Your task to perform on an android device: Set the phone to "Do not disturb". Image 0: 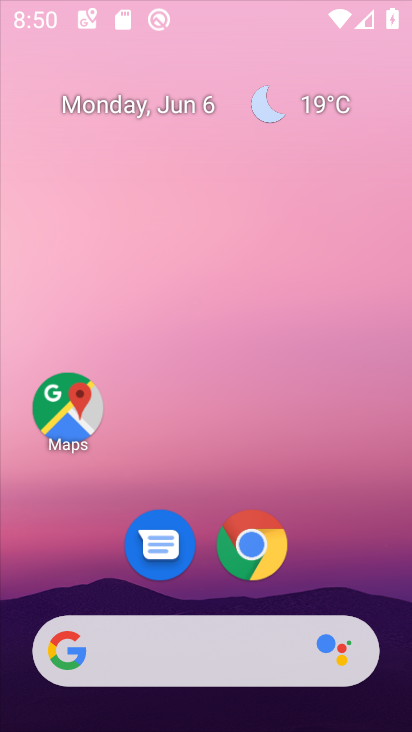
Step 0: click (64, 651)
Your task to perform on an android device: Set the phone to "Do not disturb". Image 1: 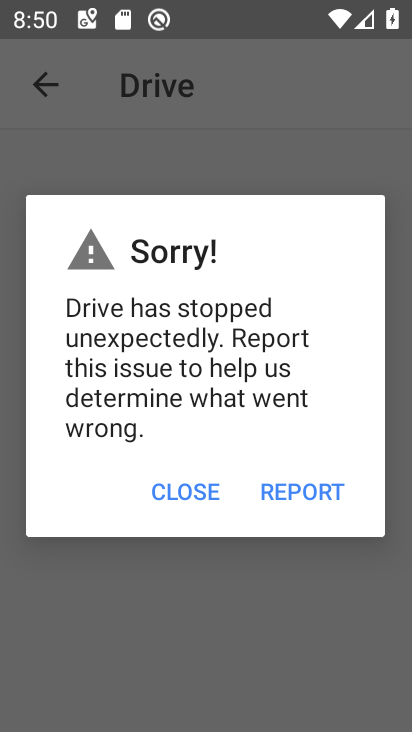
Step 1: press home button
Your task to perform on an android device: Set the phone to "Do not disturb". Image 2: 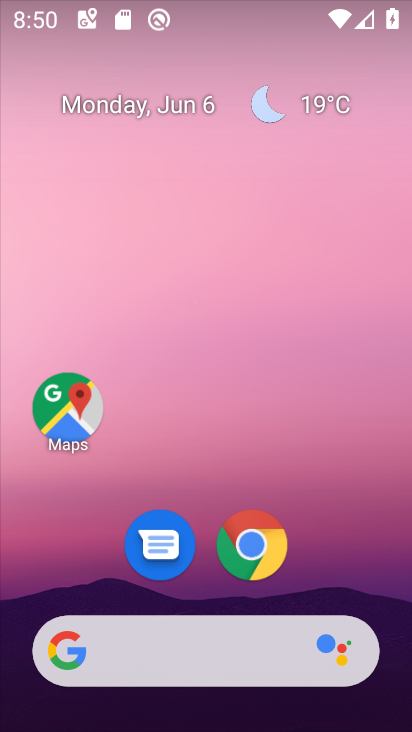
Step 2: drag from (215, 594) to (216, 192)
Your task to perform on an android device: Set the phone to "Do not disturb". Image 3: 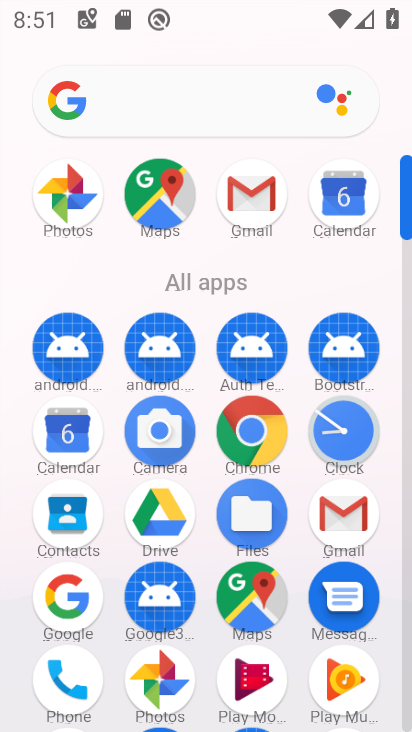
Step 3: drag from (218, 629) to (202, 400)
Your task to perform on an android device: Set the phone to "Do not disturb". Image 4: 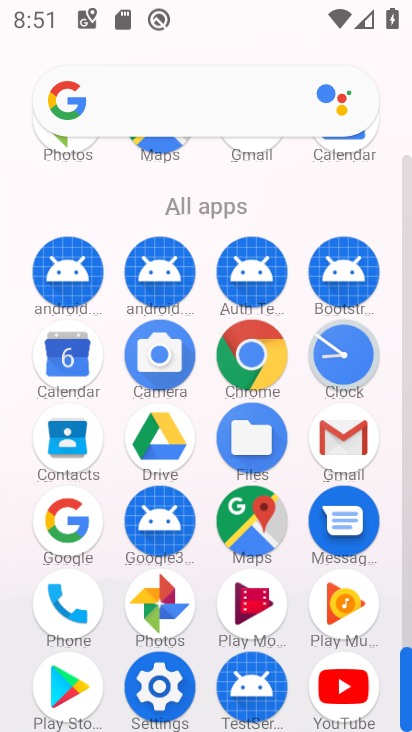
Step 4: click (153, 693)
Your task to perform on an android device: Set the phone to "Do not disturb". Image 5: 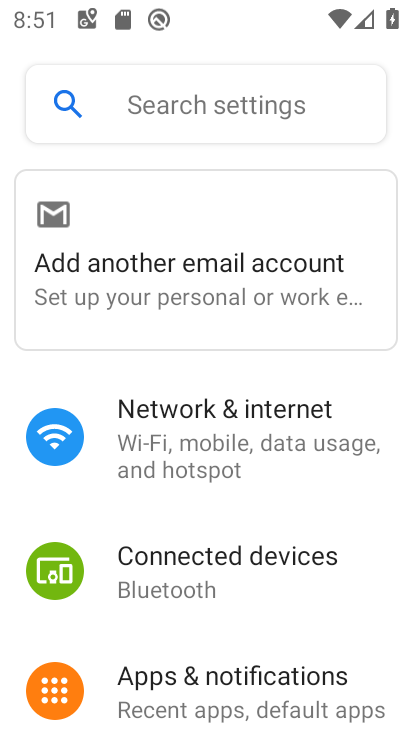
Step 5: drag from (245, 625) to (310, 152)
Your task to perform on an android device: Set the phone to "Do not disturb". Image 6: 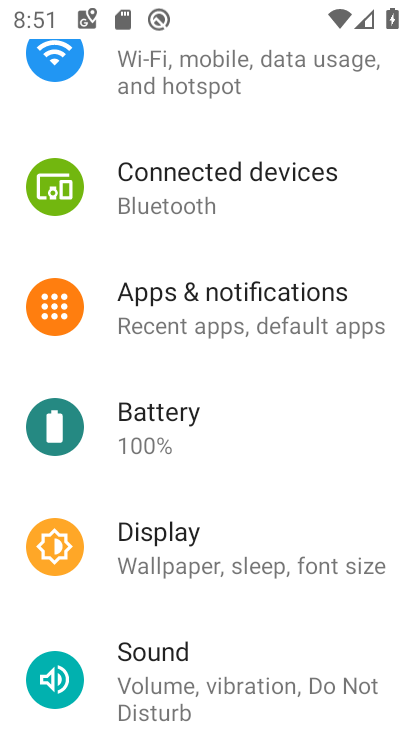
Step 6: click (188, 673)
Your task to perform on an android device: Set the phone to "Do not disturb". Image 7: 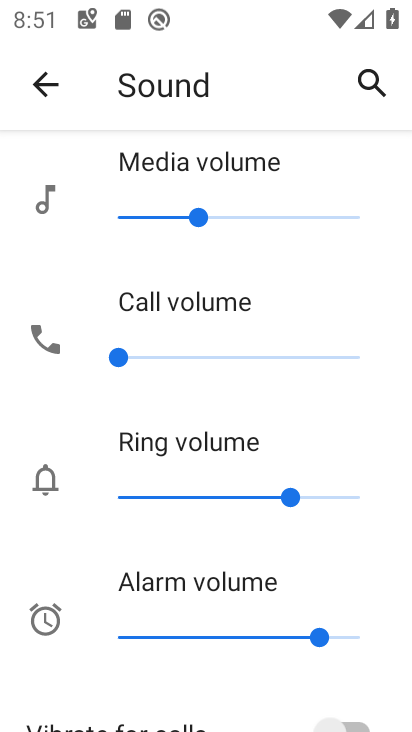
Step 7: drag from (182, 538) to (287, 150)
Your task to perform on an android device: Set the phone to "Do not disturb". Image 8: 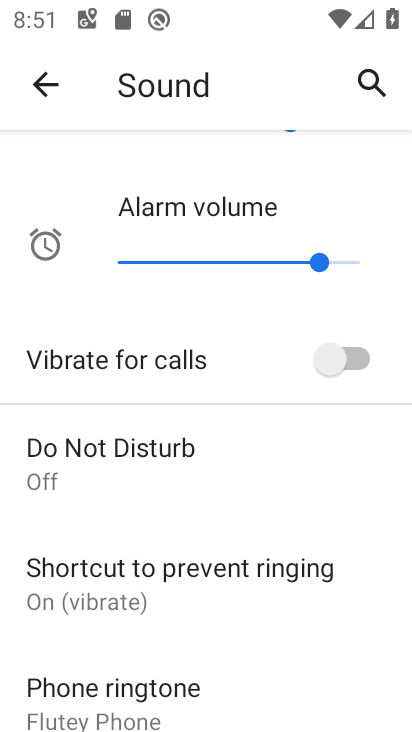
Step 8: click (68, 464)
Your task to perform on an android device: Set the phone to "Do not disturb". Image 9: 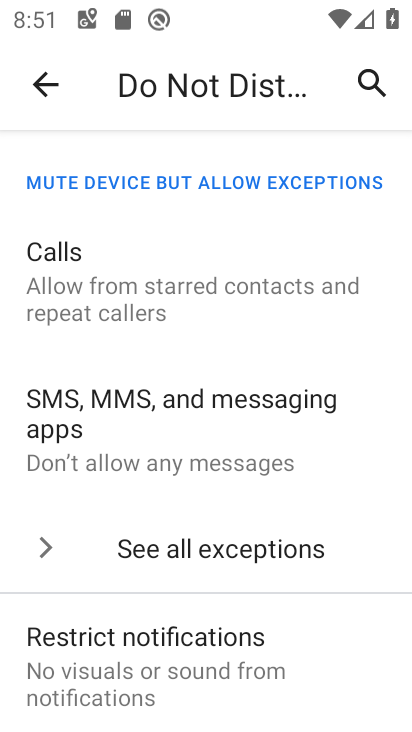
Step 9: drag from (150, 550) to (214, 248)
Your task to perform on an android device: Set the phone to "Do not disturb". Image 10: 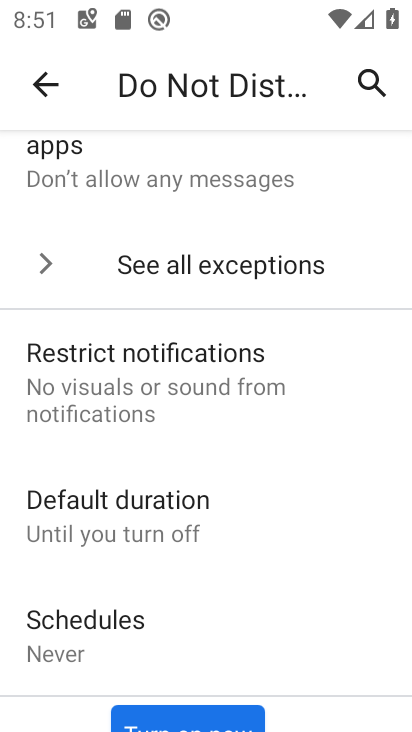
Step 10: drag from (209, 494) to (292, 210)
Your task to perform on an android device: Set the phone to "Do not disturb". Image 11: 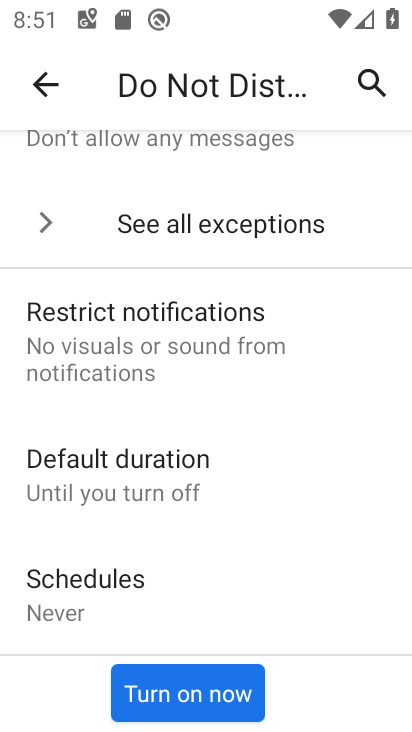
Step 11: click (184, 692)
Your task to perform on an android device: Set the phone to "Do not disturb". Image 12: 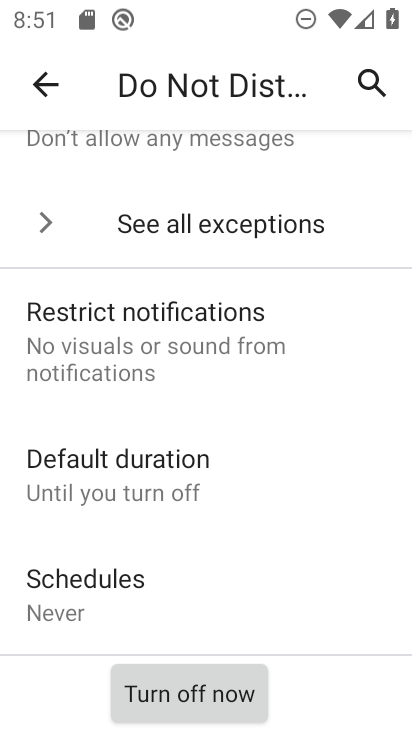
Step 12: task complete